Your task to perform on an android device: change notifications settings Image 0: 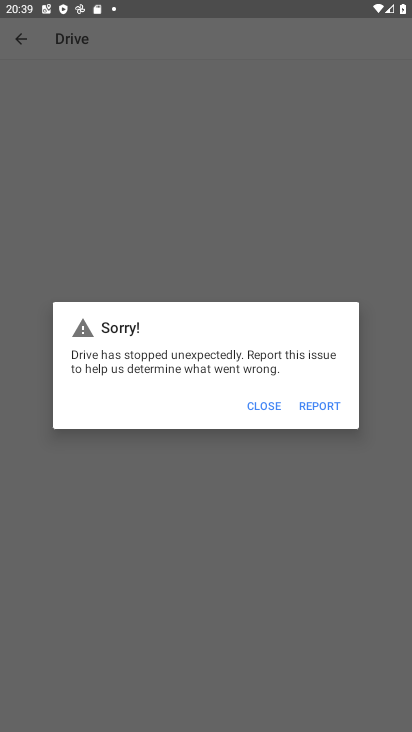
Step 0: press home button
Your task to perform on an android device: change notifications settings Image 1: 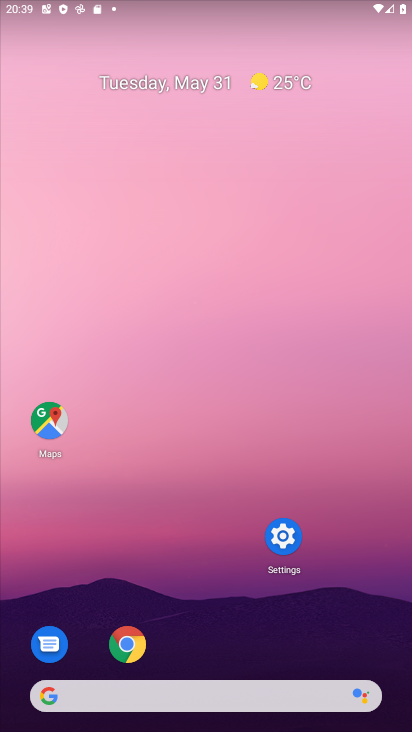
Step 1: drag from (245, 711) to (191, 260)
Your task to perform on an android device: change notifications settings Image 2: 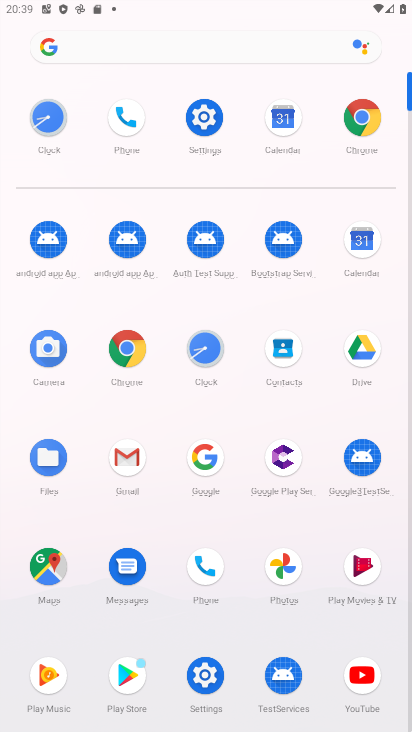
Step 2: click (207, 122)
Your task to perform on an android device: change notifications settings Image 3: 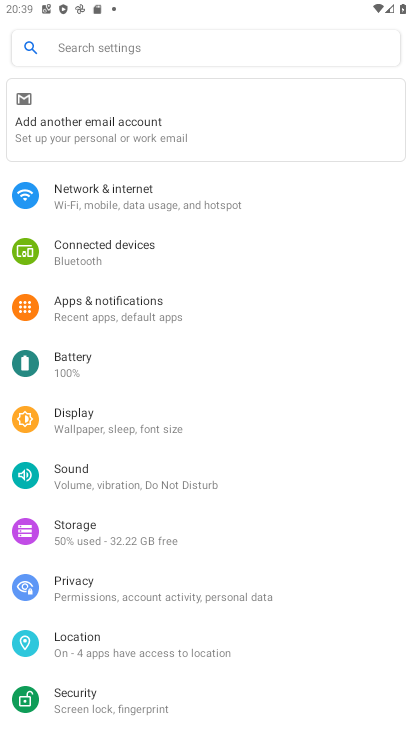
Step 3: click (143, 45)
Your task to perform on an android device: change notifications settings Image 4: 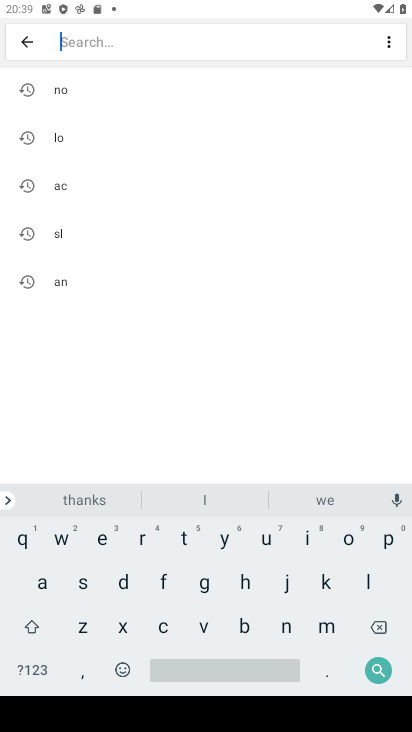
Step 4: click (288, 617)
Your task to perform on an android device: change notifications settings Image 5: 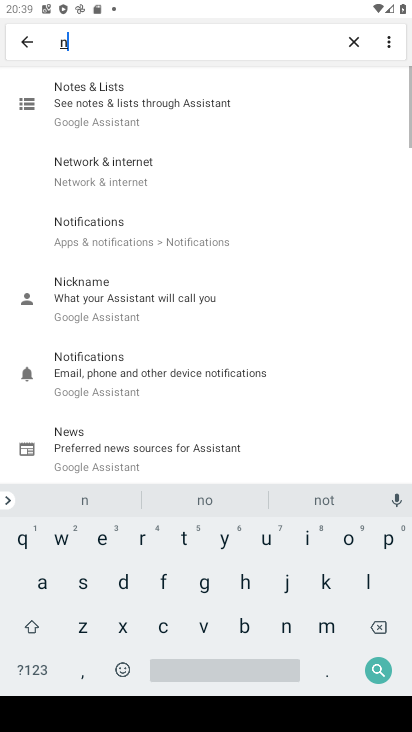
Step 5: click (351, 537)
Your task to perform on an android device: change notifications settings Image 6: 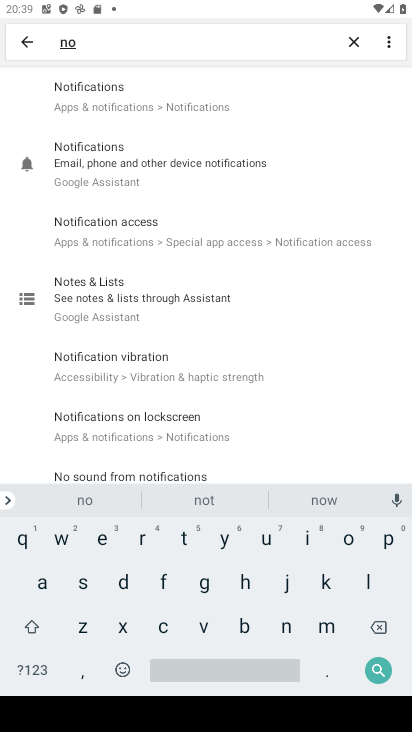
Step 6: click (135, 103)
Your task to perform on an android device: change notifications settings Image 7: 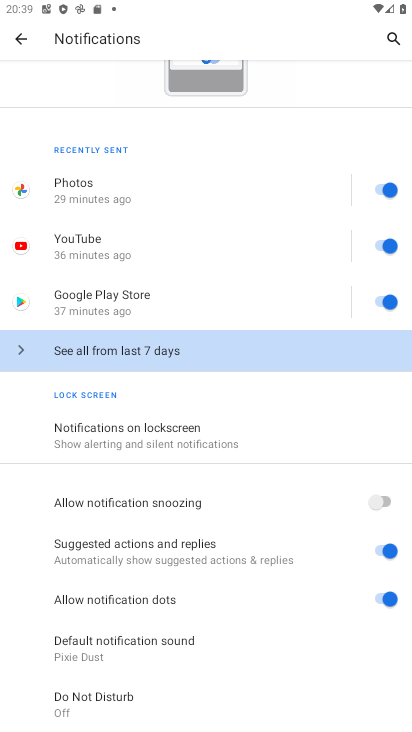
Step 7: click (109, 413)
Your task to perform on an android device: change notifications settings Image 8: 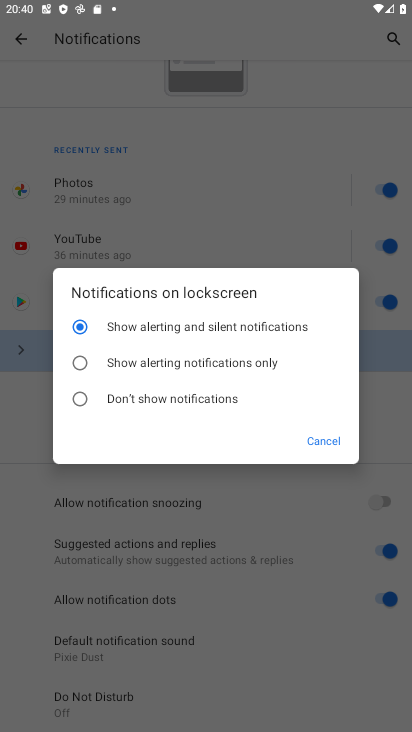
Step 8: task complete